Your task to perform on an android device: empty trash in the gmail app Image 0: 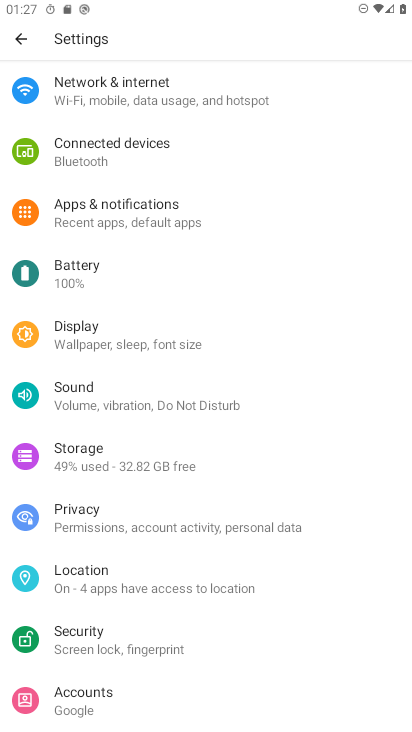
Step 0: press home button
Your task to perform on an android device: empty trash in the gmail app Image 1: 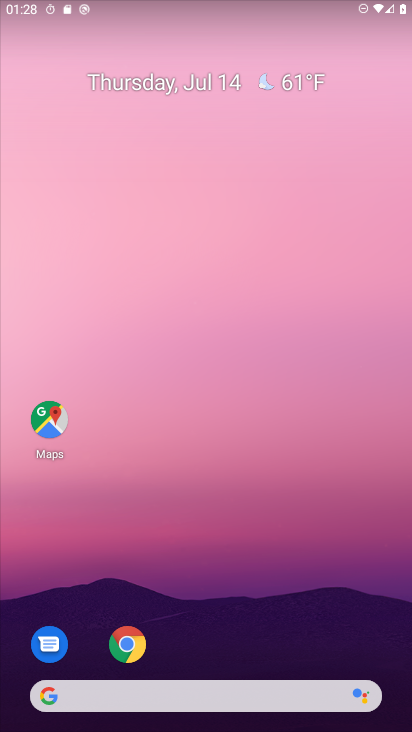
Step 1: drag from (266, 552) to (248, 6)
Your task to perform on an android device: empty trash in the gmail app Image 2: 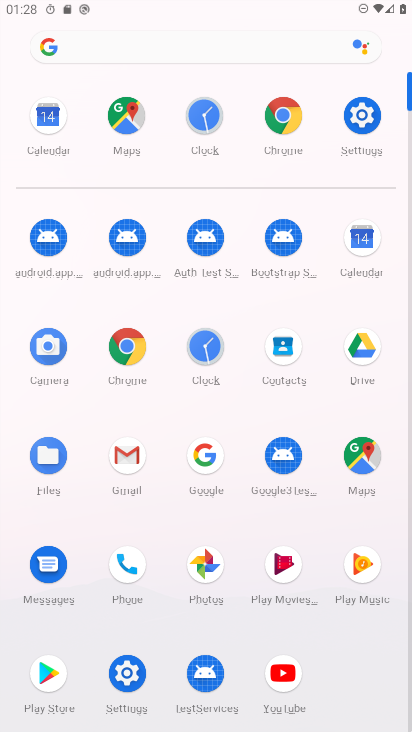
Step 2: click (122, 450)
Your task to perform on an android device: empty trash in the gmail app Image 3: 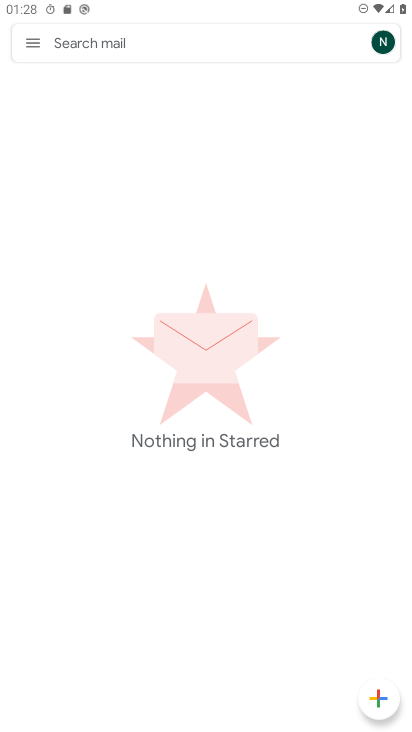
Step 3: click (28, 42)
Your task to perform on an android device: empty trash in the gmail app Image 4: 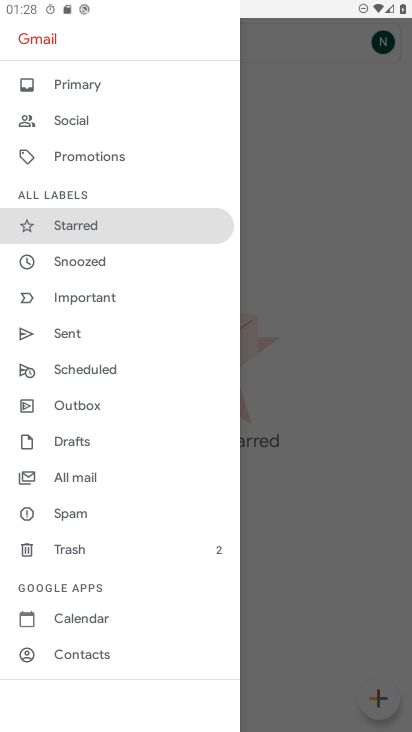
Step 4: click (84, 549)
Your task to perform on an android device: empty trash in the gmail app Image 5: 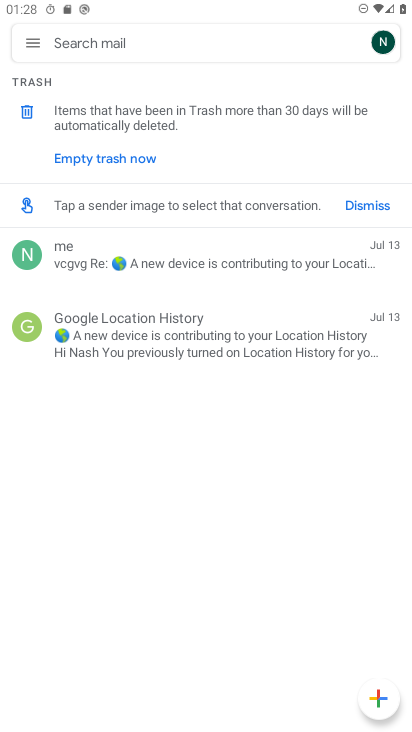
Step 5: click (151, 158)
Your task to perform on an android device: empty trash in the gmail app Image 6: 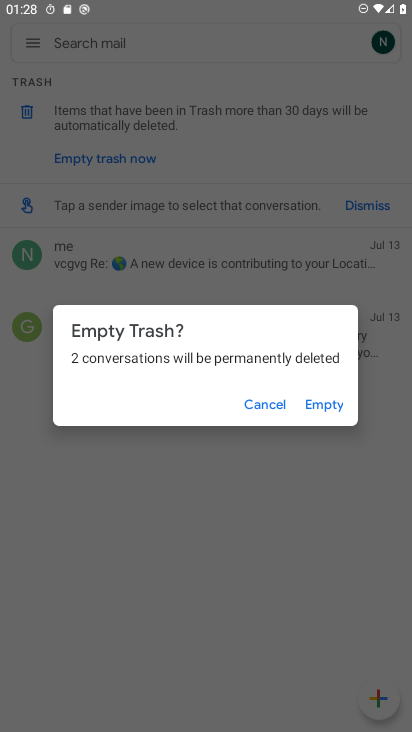
Step 6: click (333, 400)
Your task to perform on an android device: empty trash in the gmail app Image 7: 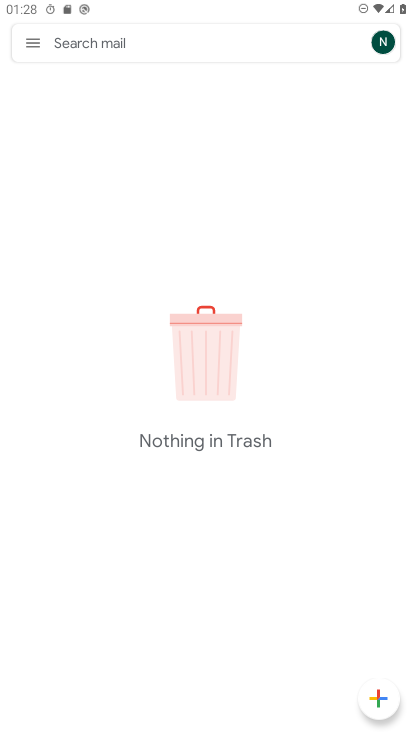
Step 7: task complete